Your task to perform on an android device: Is it going to rain today? Image 0: 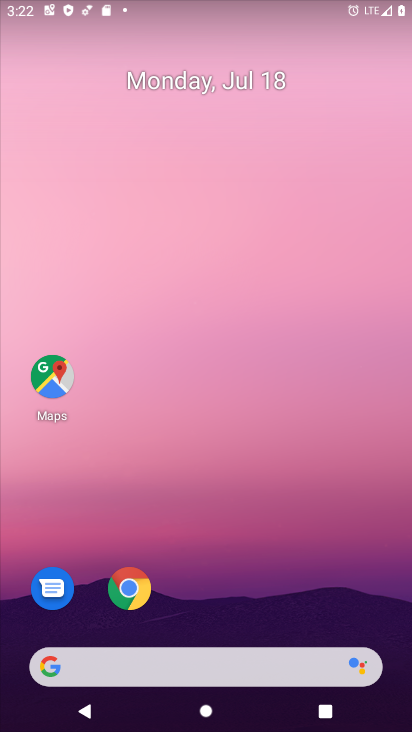
Step 0: click (172, 671)
Your task to perform on an android device: Is it going to rain today? Image 1: 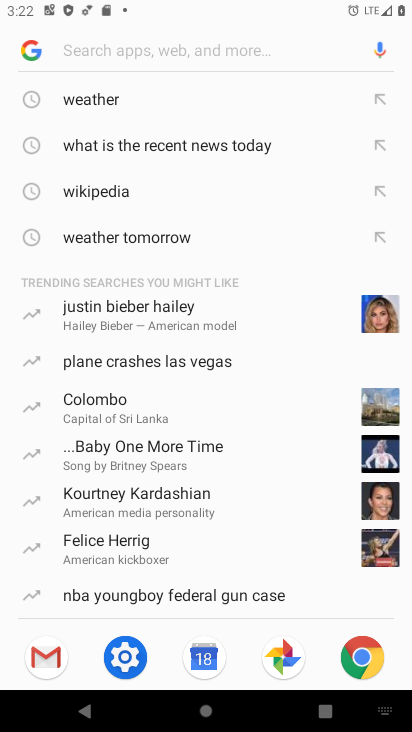
Step 1: click (100, 103)
Your task to perform on an android device: Is it going to rain today? Image 2: 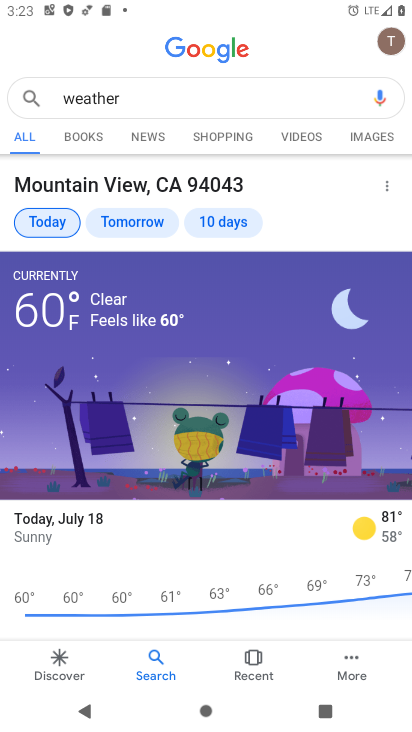
Step 2: click (38, 230)
Your task to perform on an android device: Is it going to rain today? Image 3: 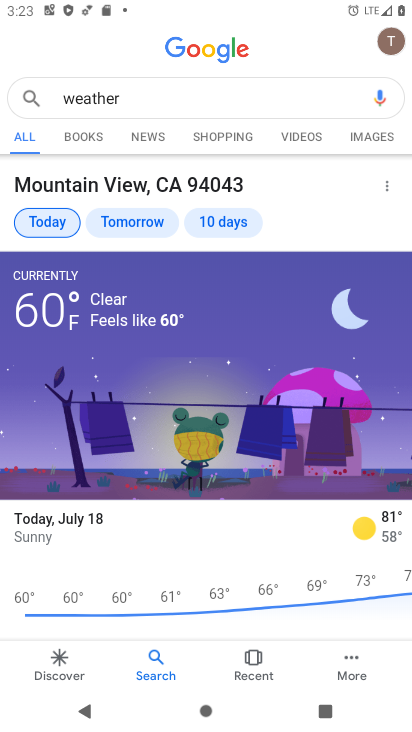
Step 3: task complete